Your task to perform on an android device: Open Google Chrome Image 0: 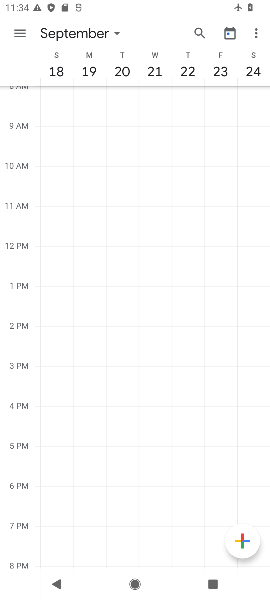
Step 0: press home button
Your task to perform on an android device: Open Google Chrome Image 1: 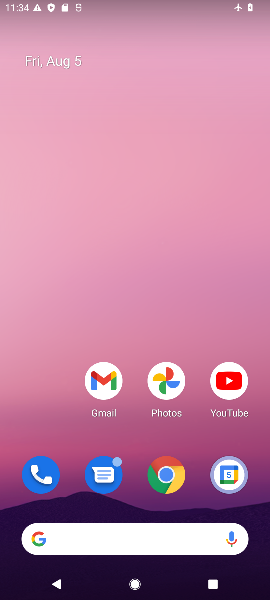
Step 1: click (162, 484)
Your task to perform on an android device: Open Google Chrome Image 2: 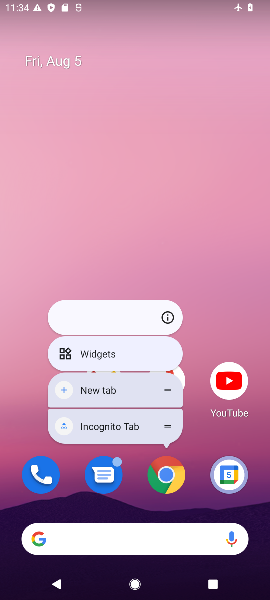
Step 2: click (162, 484)
Your task to perform on an android device: Open Google Chrome Image 3: 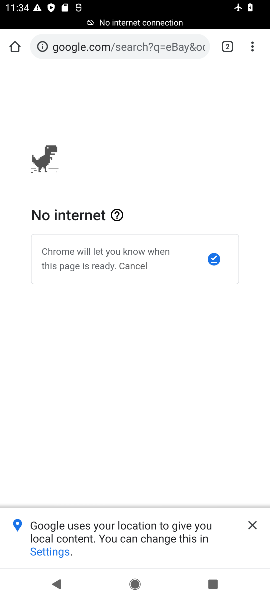
Step 3: task complete